Your task to perform on an android device: Go to Google Image 0: 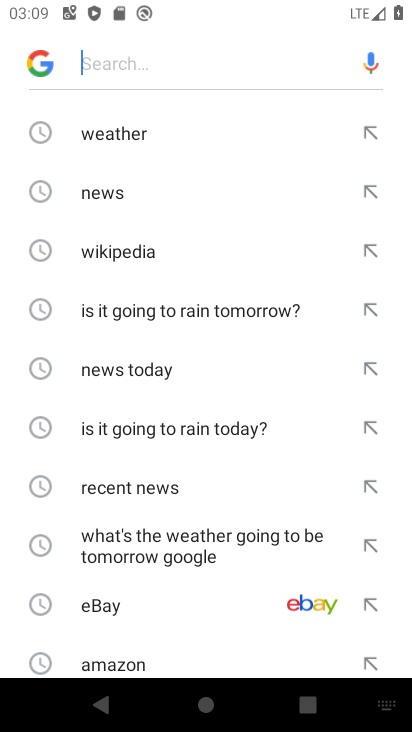
Step 0: press home button
Your task to perform on an android device: Go to Google Image 1: 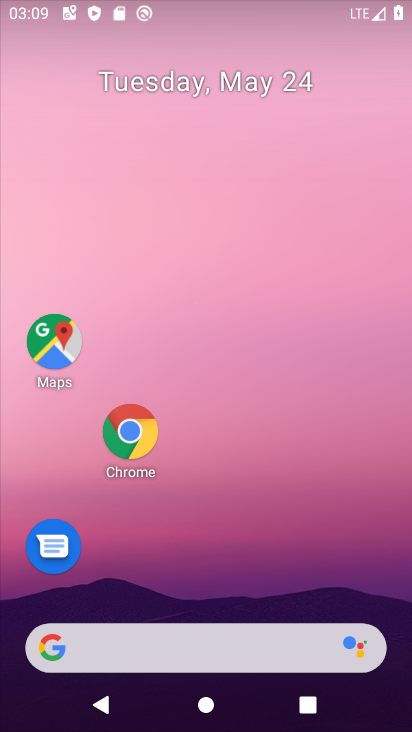
Step 1: drag from (208, 646) to (262, 176)
Your task to perform on an android device: Go to Google Image 2: 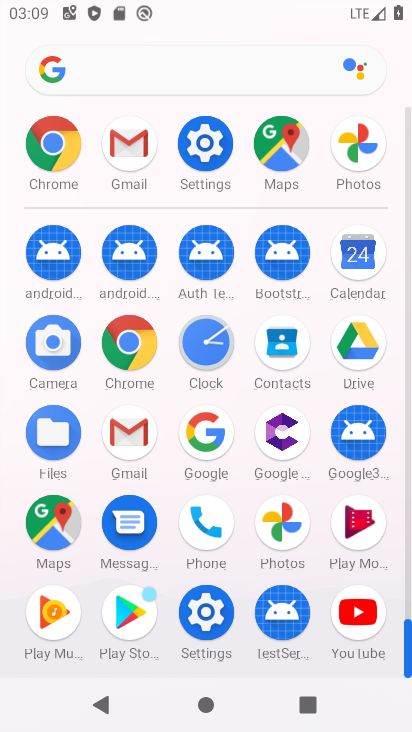
Step 2: click (197, 431)
Your task to perform on an android device: Go to Google Image 3: 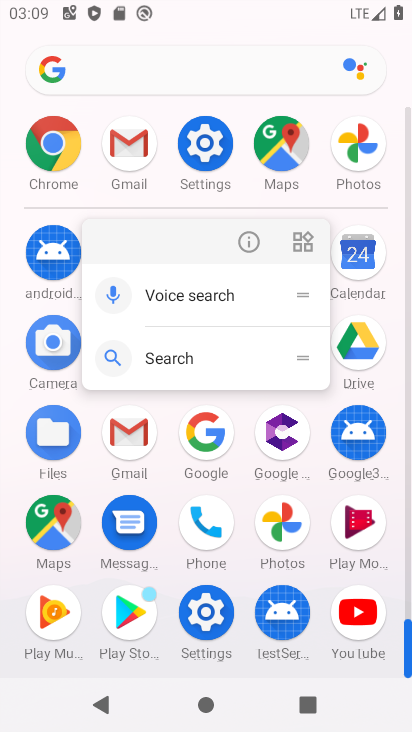
Step 3: click (236, 248)
Your task to perform on an android device: Go to Google Image 4: 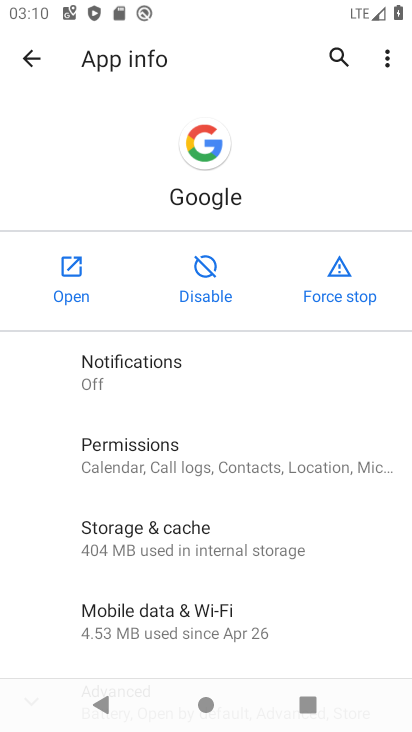
Step 4: click (86, 289)
Your task to perform on an android device: Go to Google Image 5: 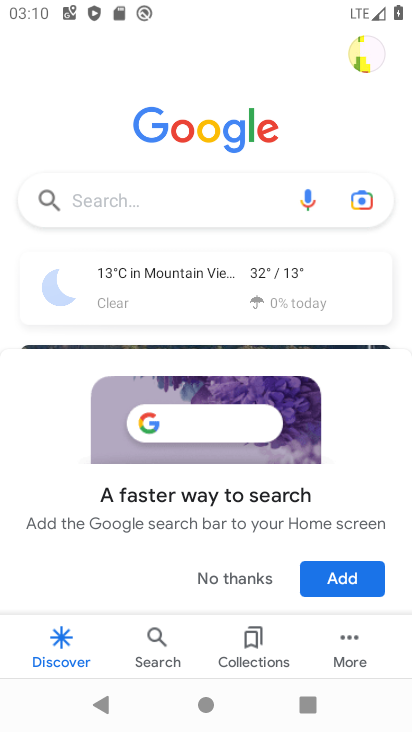
Step 5: task complete